Your task to perform on an android device: Search for pizza restaurants on Maps Image 0: 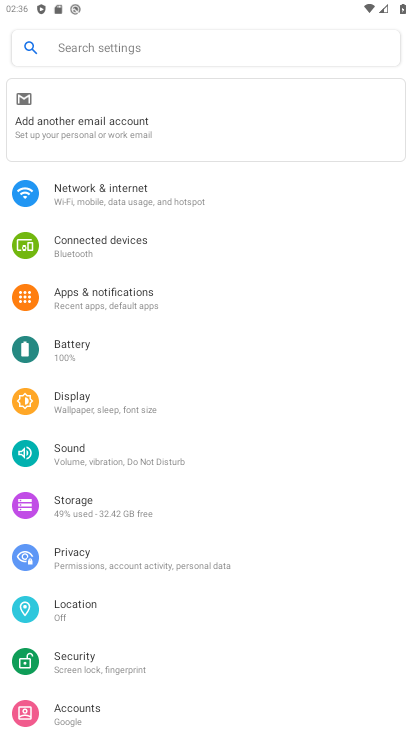
Step 0: press home button
Your task to perform on an android device: Search for pizza restaurants on Maps Image 1: 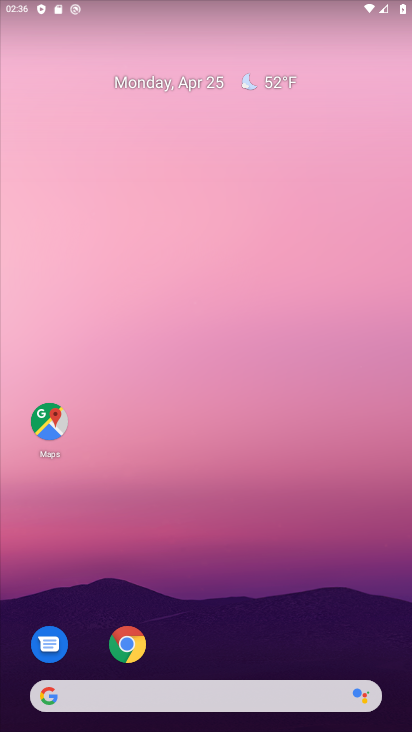
Step 1: click (55, 443)
Your task to perform on an android device: Search for pizza restaurants on Maps Image 2: 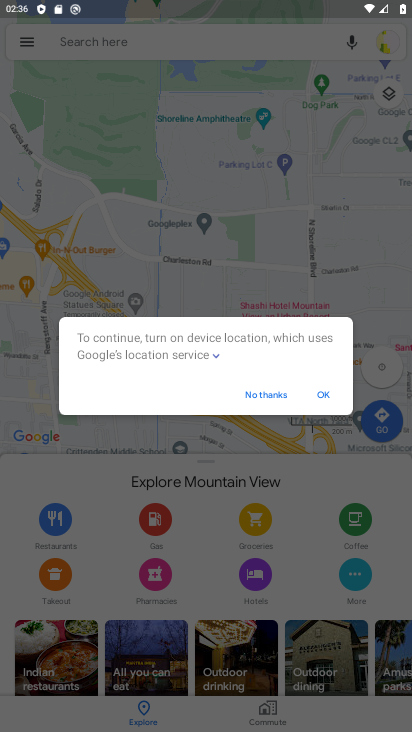
Step 2: click (198, 38)
Your task to perform on an android device: Search for pizza restaurants on Maps Image 3: 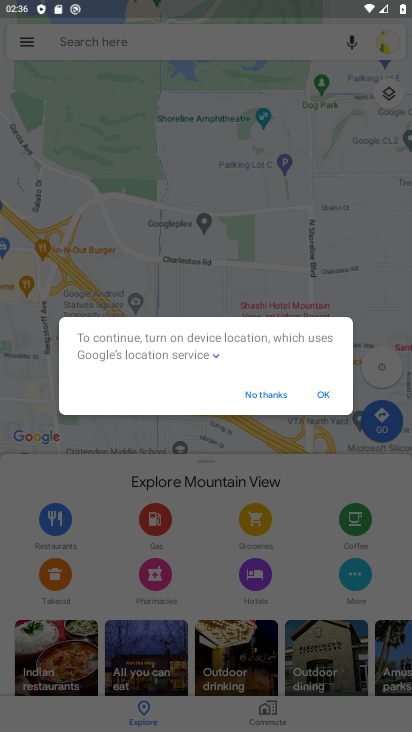
Step 3: click (322, 401)
Your task to perform on an android device: Search for pizza restaurants on Maps Image 4: 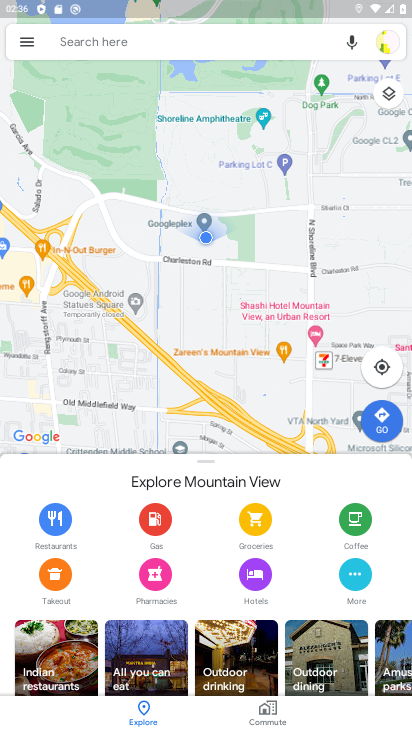
Step 4: click (189, 50)
Your task to perform on an android device: Search for pizza restaurants on Maps Image 5: 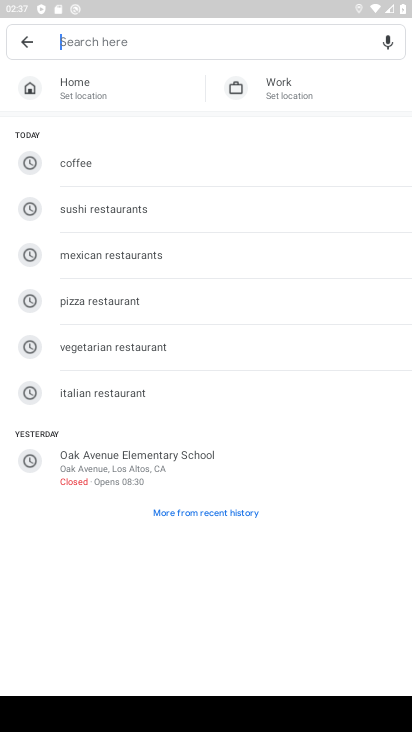
Step 5: click (149, 309)
Your task to perform on an android device: Search for pizza restaurants on Maps Image 6: 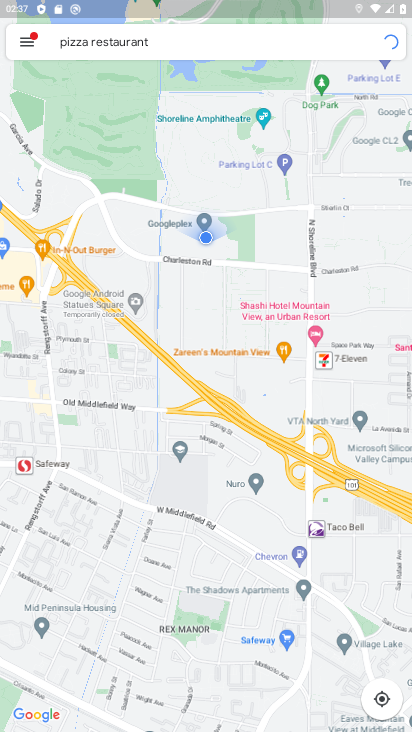
Step 6: task complete